Your task to perform on an android device: turn off wifi Image 0: 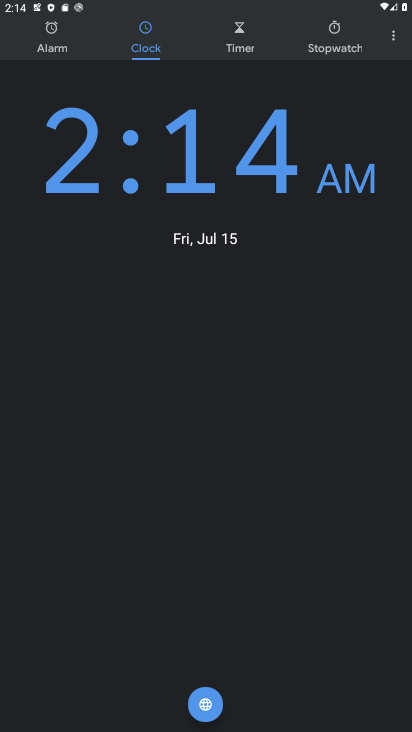
Step 0: press home button
Your task to perform on an android device: turn off wifi Image 1: 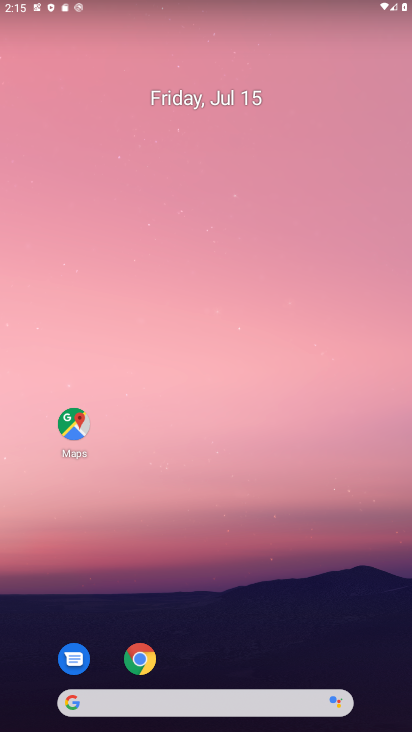
Step 1: drag from (216, 589) to (219, 174)
Your task to perform on an android device: turn off wifi Image 2: 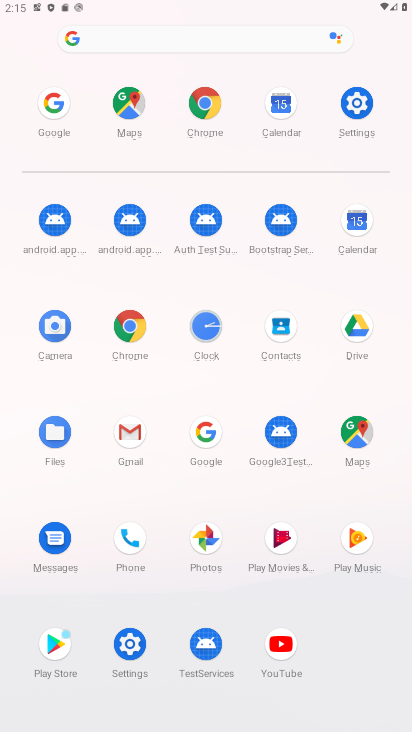
Step 2: click (372, 93)
Your task to perform on an android device: turn off wifi Image 3: 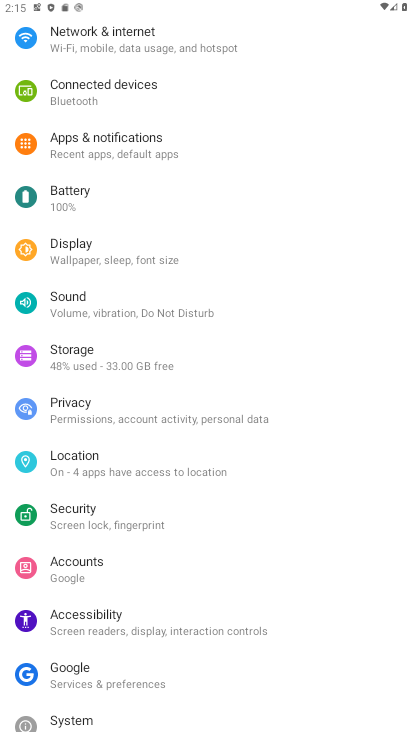
Step 3: click (104, 42)
Your task to perform on an android device: turn off wifi Image 4: 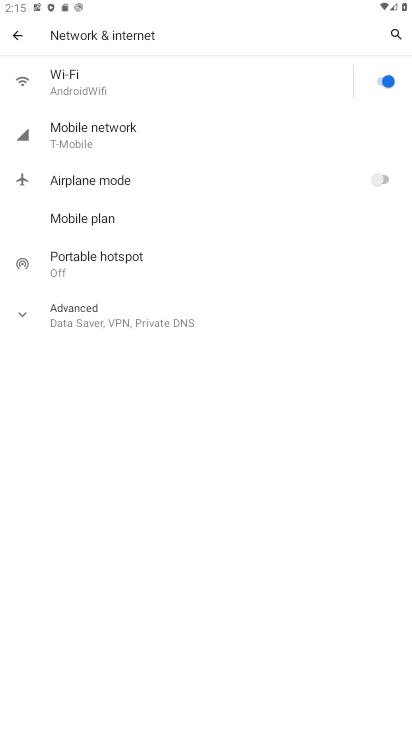
Step 4: click (374, 69)
Your task to perform on an android device: turn off wifi Image 5: 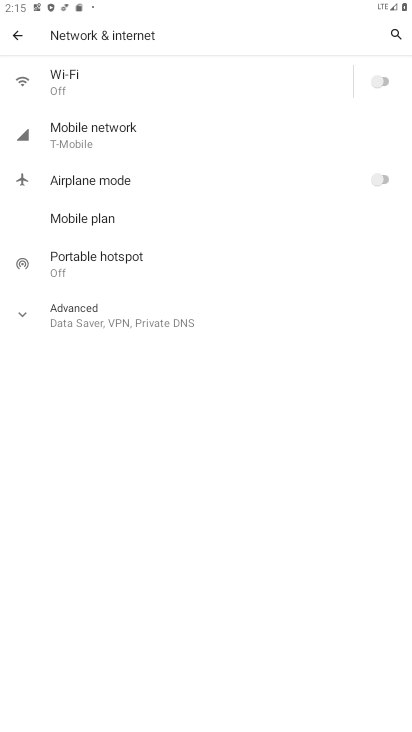
Step 5: task complete